Your task to perform on an android device: Open Google Chrome and open the bookmarks view Image 0: 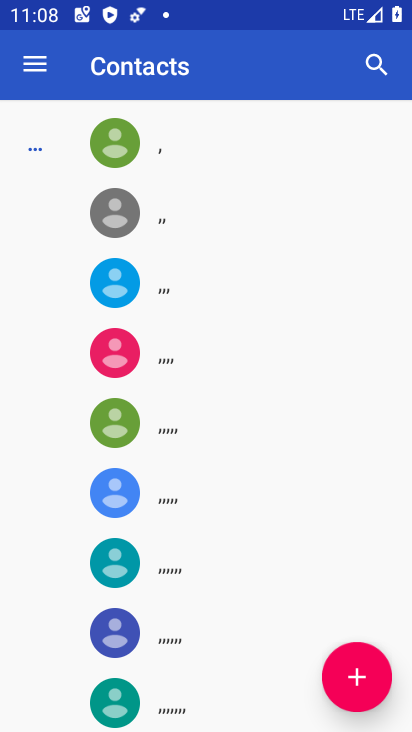
Step 0: press home button
Your task to perform on an android device: Open Google Chrome and open the bookmarks view Image 1: 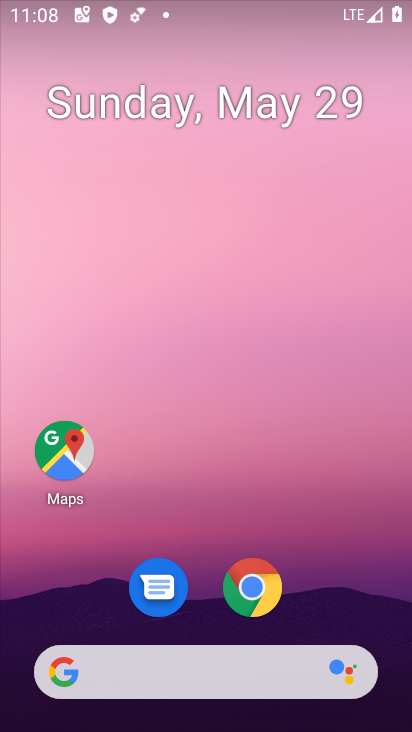
Step 1: click (248, 592)
Your task to perform on an android device: Open Google Chrome and open the bookmarks view Image 2: 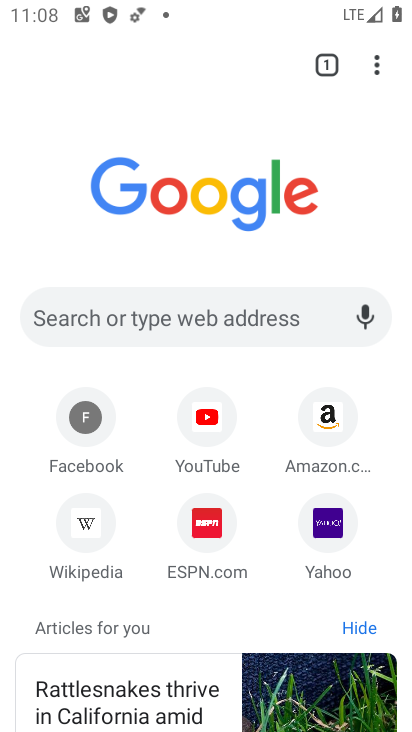
Step 2: task complete